Your task to perform on an android device: see creations saved in the google photos Image 0: 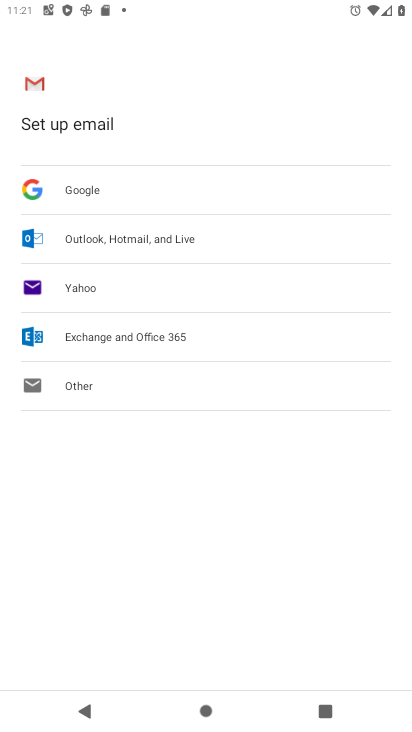
Step 0: press home button
Your task to perform on an android device: see creations saved in the google photos Image 1: 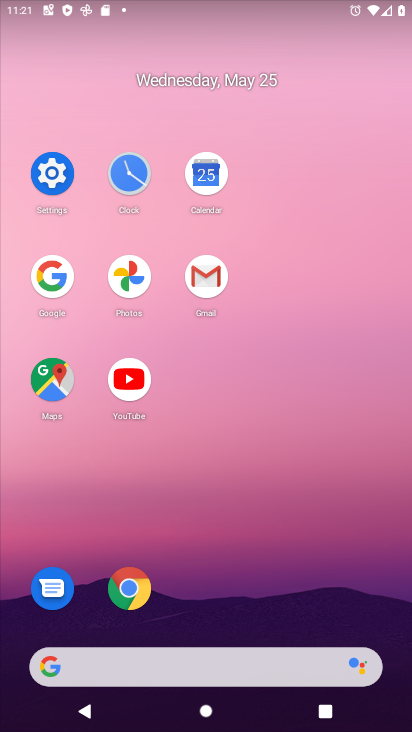
Step 1: click (118, 267)
Your task to perform on an android device: see creations saved in the google photos Image 2: 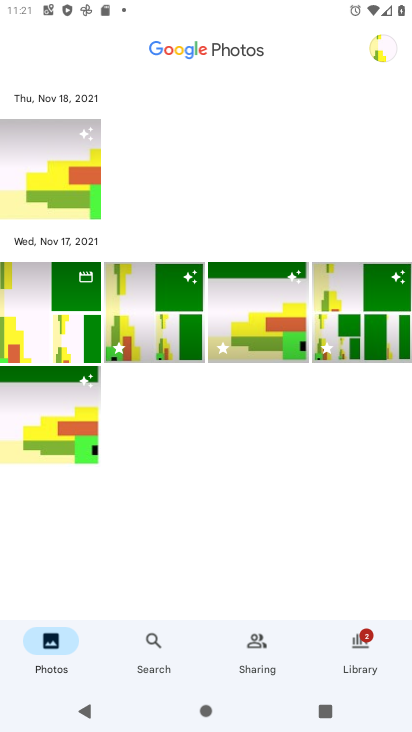
Step 2: click (148, 657)
Your task to perform on an android device: see creations saved in the google photos Image 3: 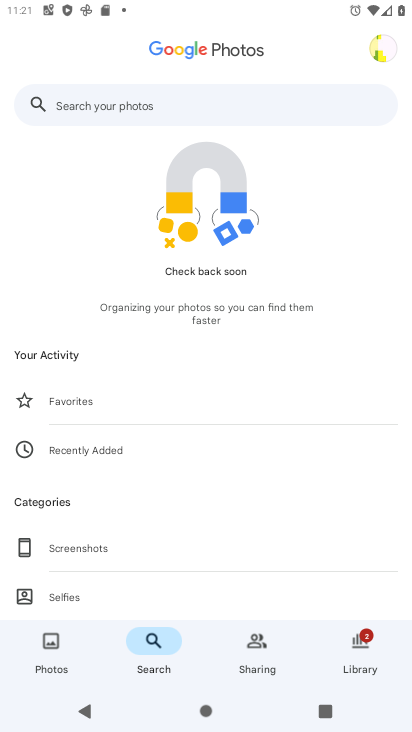
Step 3: drag from (182, 527) to (188, 219)
Your task to perform on an android device: see creations saved in the google photos Image 4: 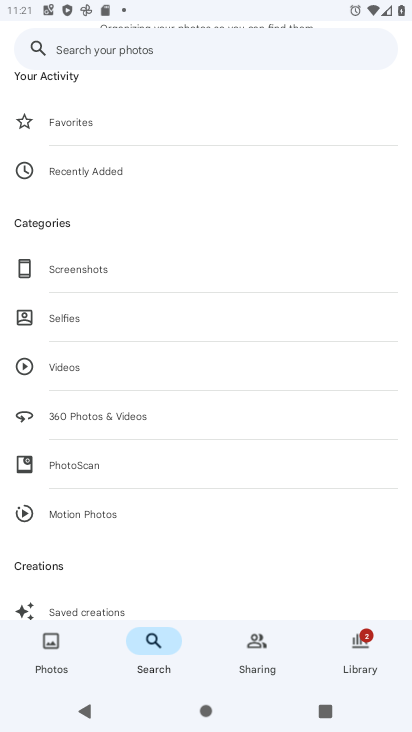
Step 4: drag from (184, 493) to (198, 211)
Your task to perform on an android device: see creations saved in the google photos Image 5: 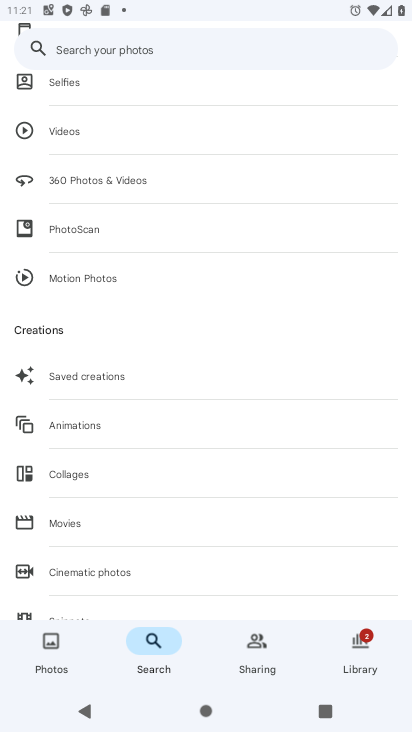
Step 5: click (142, 372)
Your task to perform on an android device: see creations saved in the google photos Image 6: 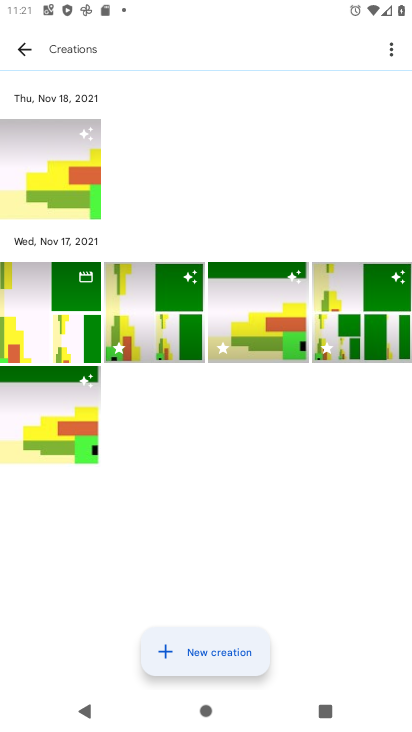
Step 6: task complete